Your task to perform on an android device: turn on location history Image 0: 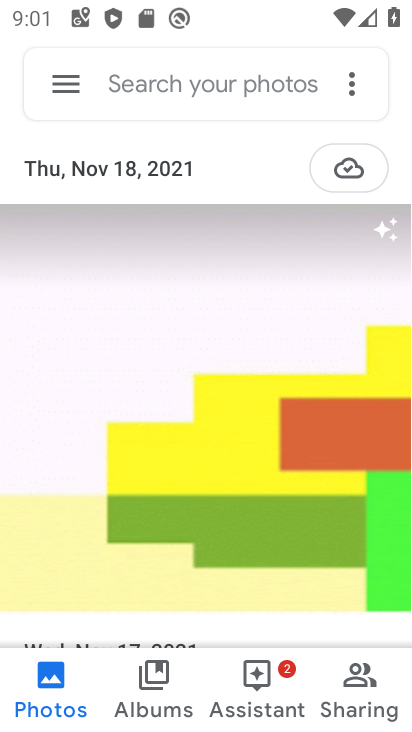
Step 0: press home button
Your task to perform on an android device: turn on location history Image 1: 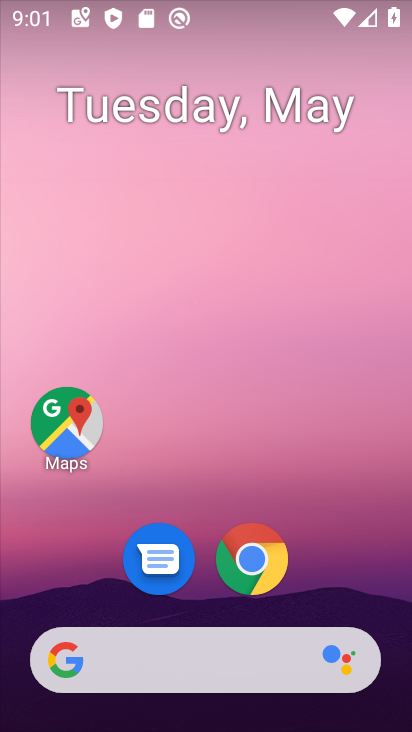
Step 1: drag from (286, 429) to (363, 49)
Your task to perform on an android device: turn on location history Image 2: 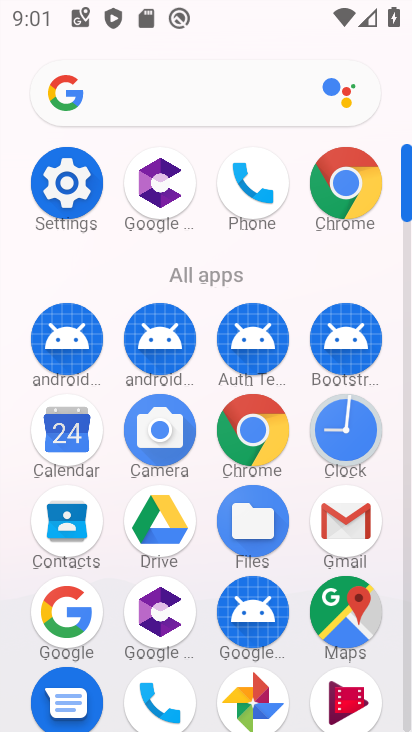
Step 2: click (55, 186)
Your task to perform on an android device: turn on location history Image 3: 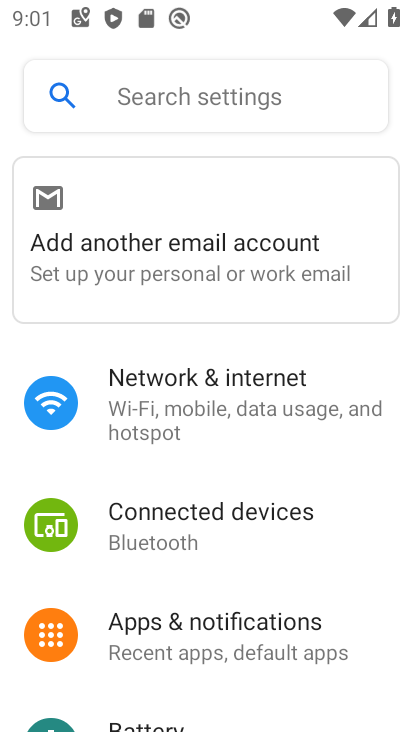
Step 3: drag from (244, 503) to (235, 145)
Your task to perform on an android device: turn on location history Image 4: 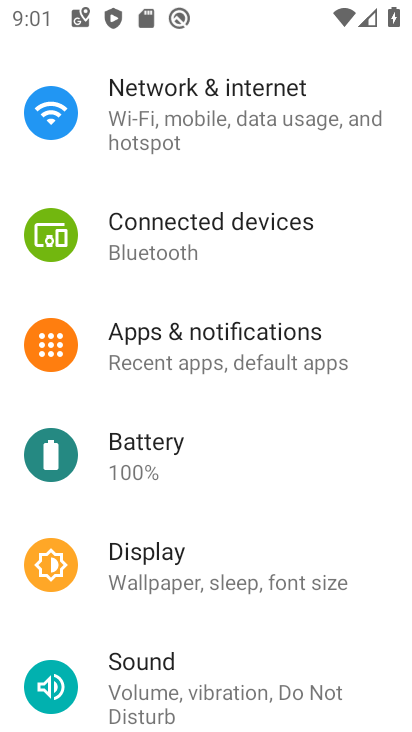
Step 4: drag from (195, 597) to (222, 148)
Your task to perform on an android device: turn on location history Image 5: 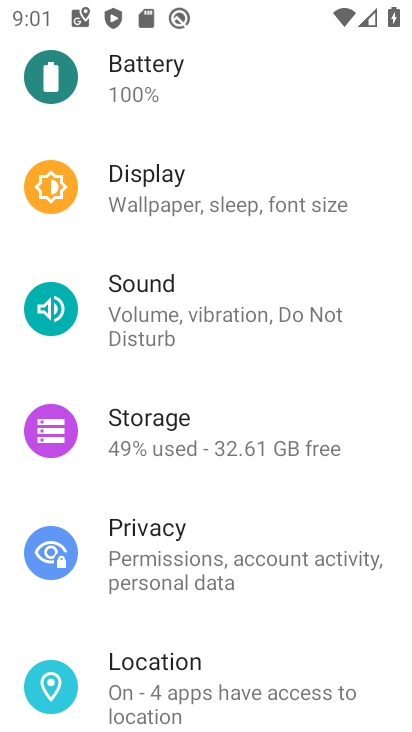
Step 5: click (182, 677)
Your task to perform on an android device: turn on location history Image 6: 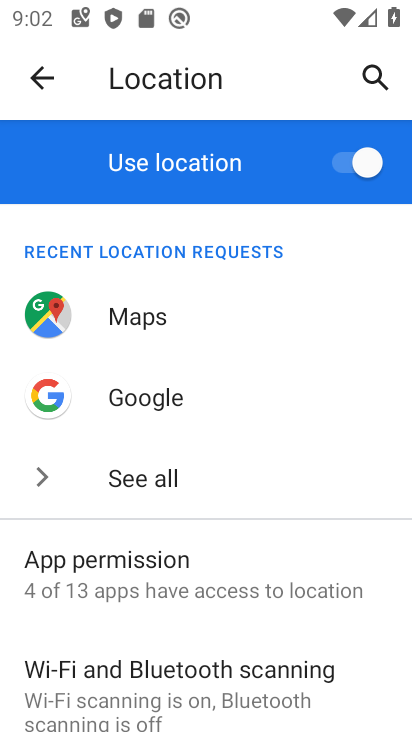
Step 6: drag from (219, 473) to (240, 86)
Your task to perform on an android device: turn on location history Image 7: 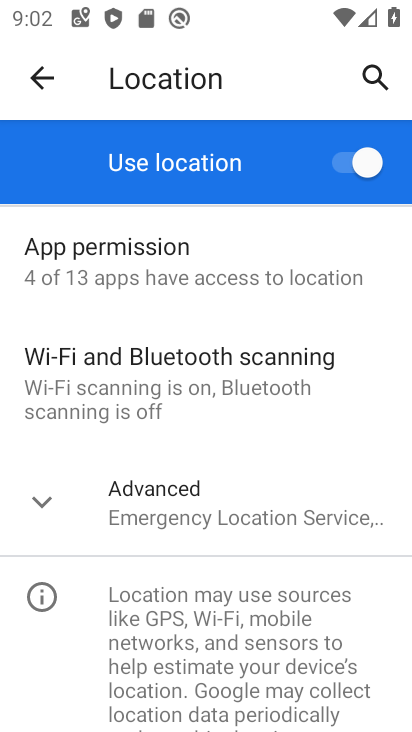
Step 7: click (209, 495)
Your task to perform on an android device: turn on location history Image 8: 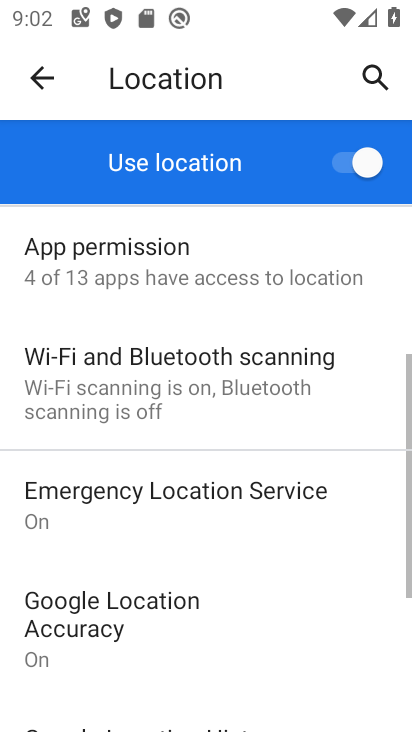
Step 8: drag from (224, 603) to (250, 182)
Your task to perform on an android device: turn on location history Image 9: 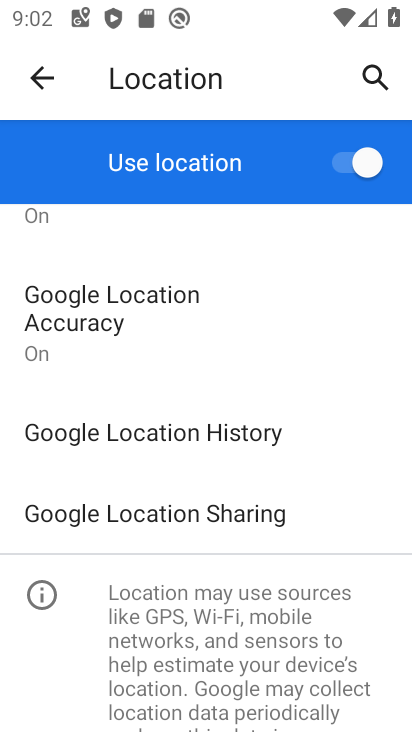
Step 9: click (161, 424)
Your task to perform on an android device: turn on location history Image 10: 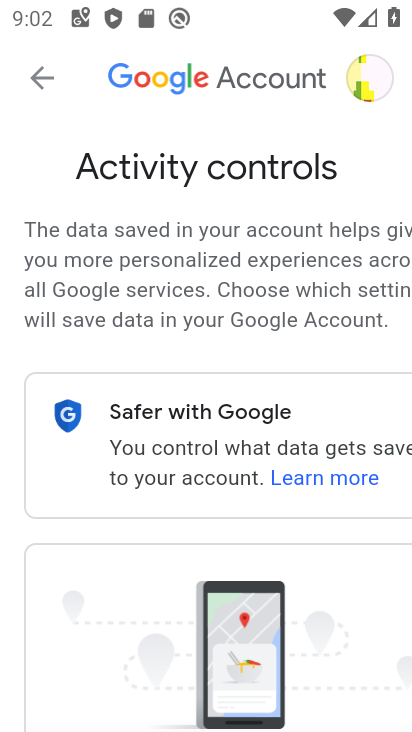
Step 10: task complete